Your task to perform on an android device: delete the emails in spam in the gmail app Image 0: 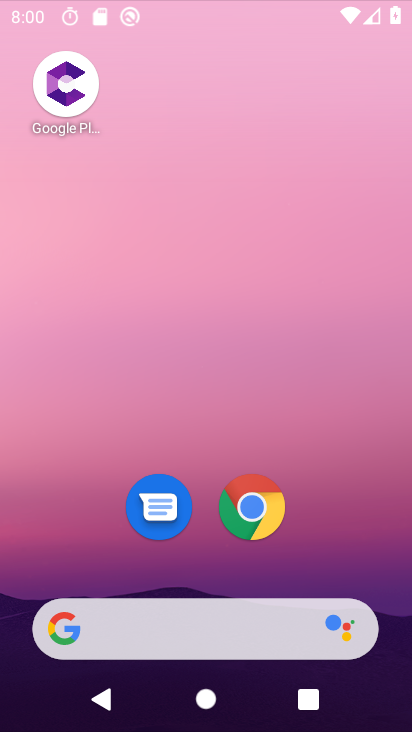
Step 0: press home button
Your task to perform on an android device: delete the emails in spam in the gmail app Image 1: 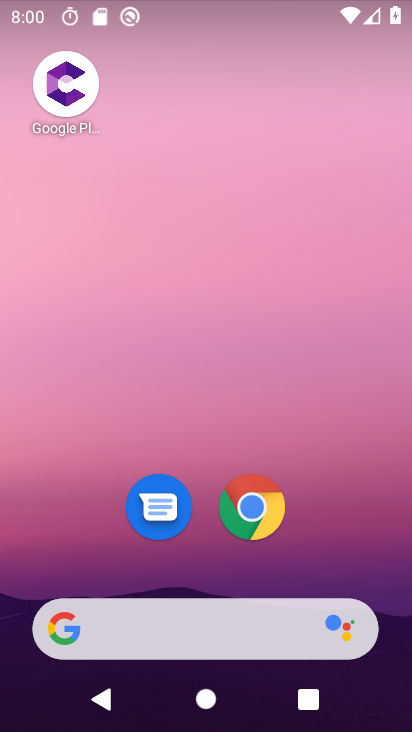
Step 1: drag from (345, 575) to (342, 148)
Your task to perform on an android device: delete the emails in spam in the gmail app Image 2: 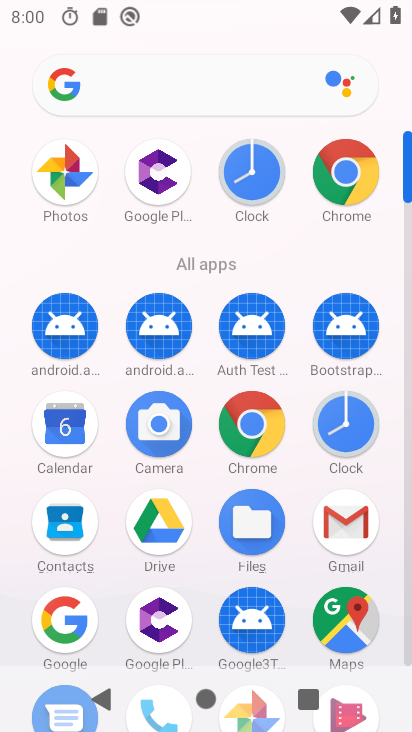
Step 2: click (341, 531)
Your task to perform on an android device: delete the emails in spam in the gmail app Image 3: 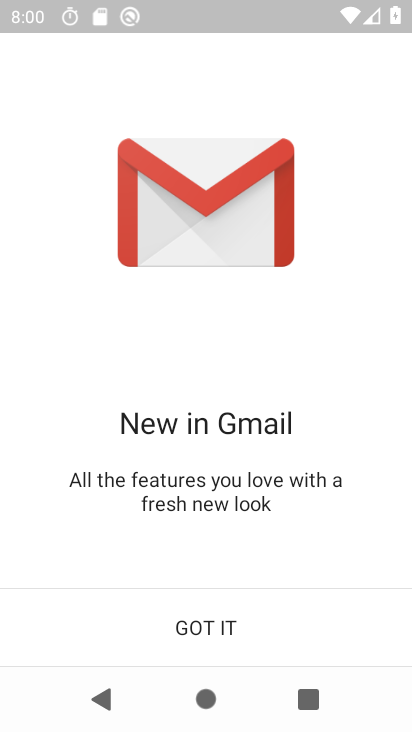
Step 3: click (207, 630)
Your task to perform on an android device: delete the emails in spam in the gmail app Image 4: 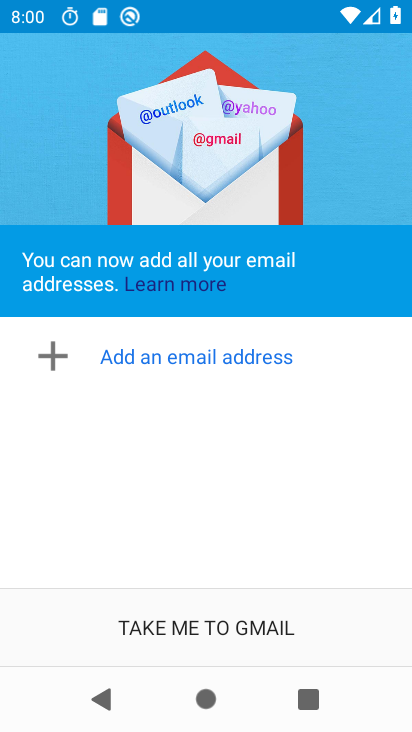
Step 4: click (207, 630)
Your task to perform on an android device: delete the emails in spam in the gmail app Image 5: 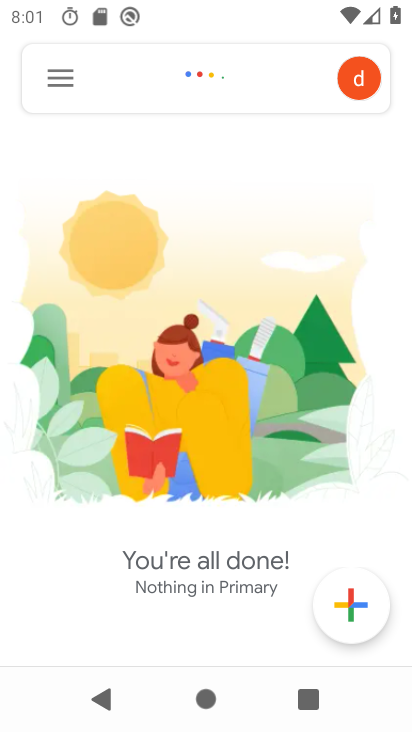
Step 5: task complete